Your task to perform on an android device: Go to Reddit.com Image 0: 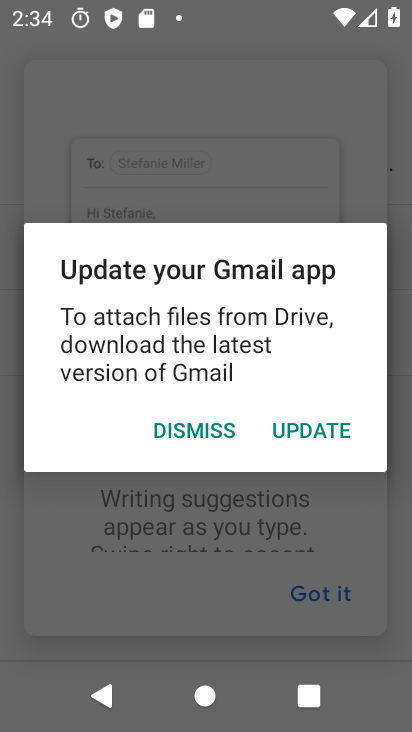
Step 0: press home button
Your task to perform on an android device: Go to Reddit.com Image 1: 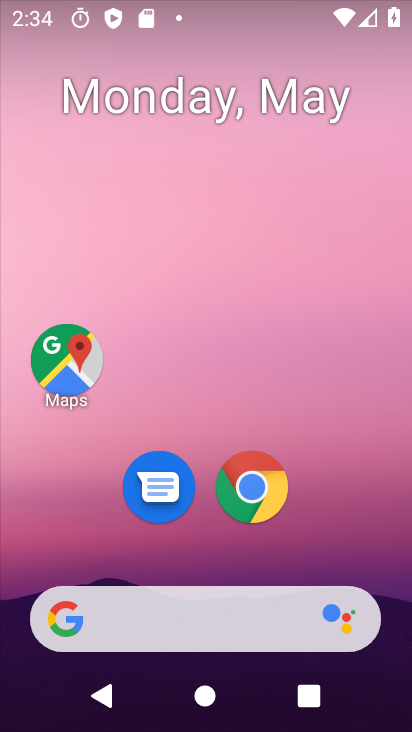
Step 1: click (264, 496)
Your task to perform on an android device: Go to Reddit.com Image 2: 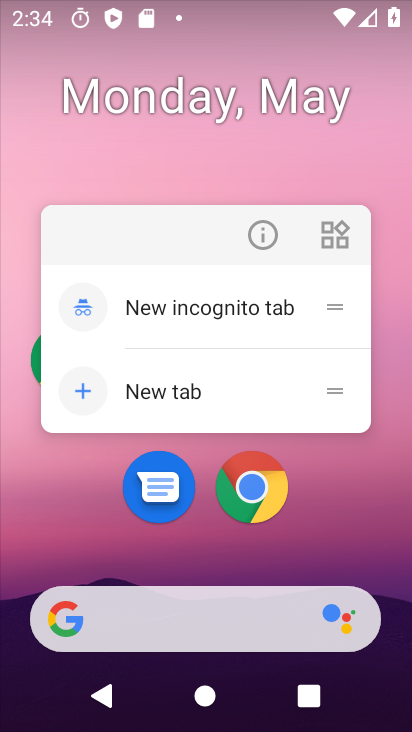
Step 2: click (264, 496)
Your task to perform on an android device: Go to Reddit.com Image 3: 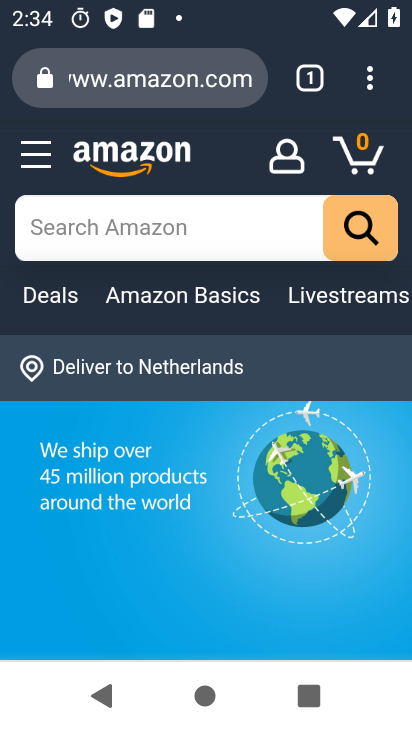
Step 3: click (155, 87)
Your task to perform on an android device: Go to Reddit.com Image 4: 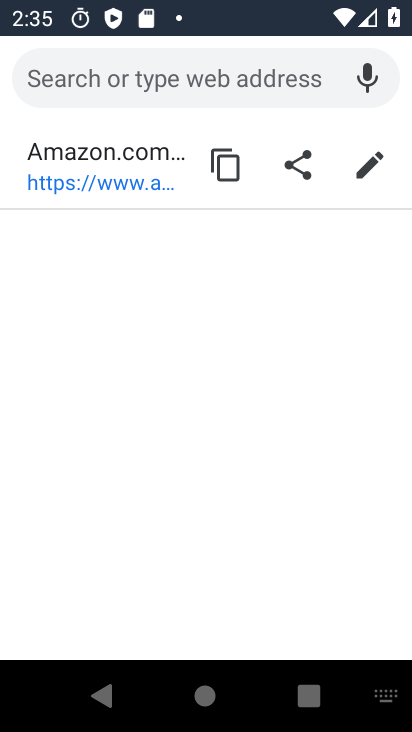
Step 4: type "Reddit.com"
Your task to perform on an android device: Go to Reddit.com Image 5: 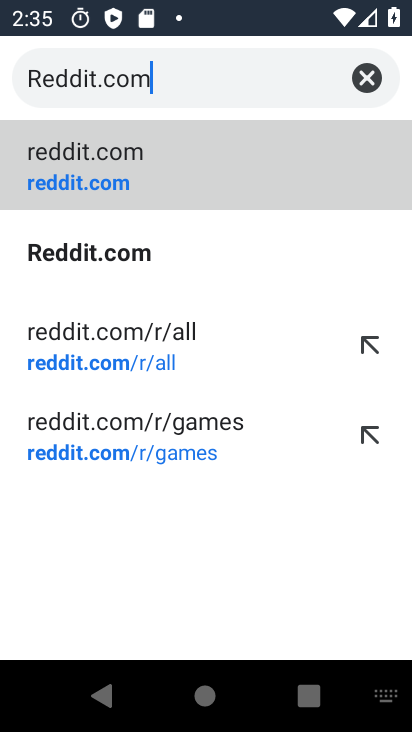
Step 5: click (189, 172)
Your task to perform on an android device: Go to Reddit.com Image 6: 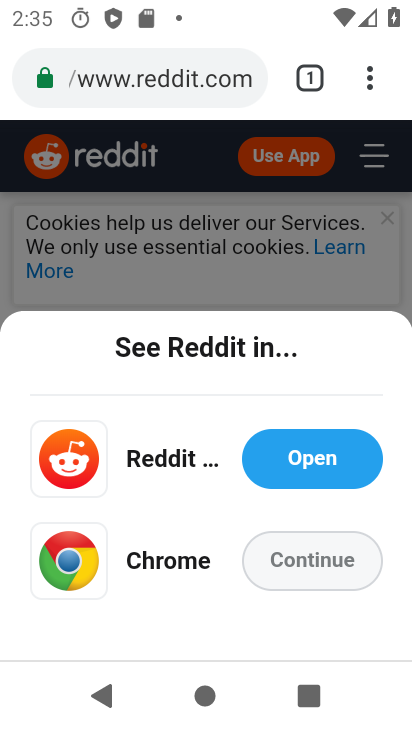
Step 6: task complete